Your task to perform on an android device: Open Google Maps Image 0: 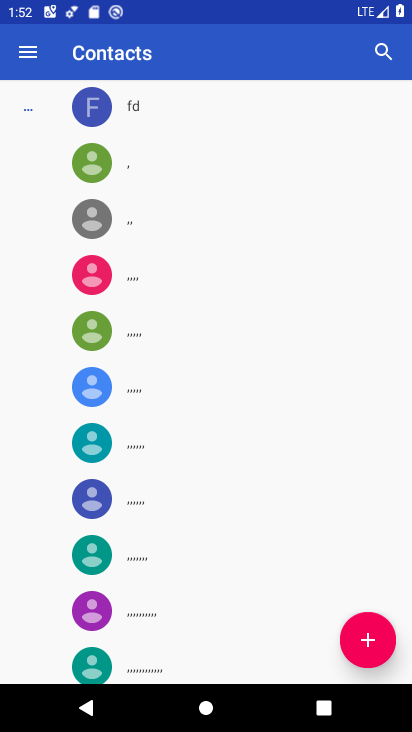
Step 0: press home button
Your task to perform on an android device: Open Google Maps Image 1: 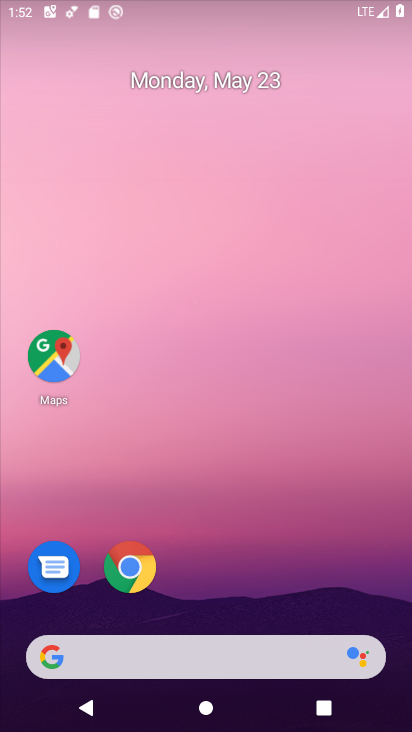
Step 1: drag from (233, 616) to (207, 318)
Your task to perform on an android device: Open Google Maps Image 2: 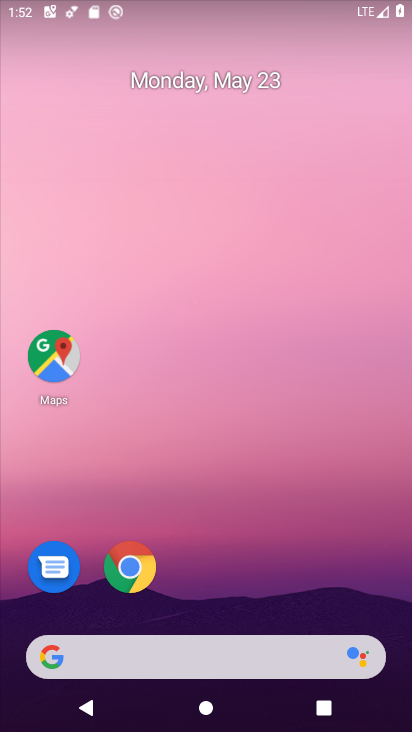
Step 2: drag from (204, 576) to (233, 215)
Your task to perform on an android device: Open Google Maps Image 3: 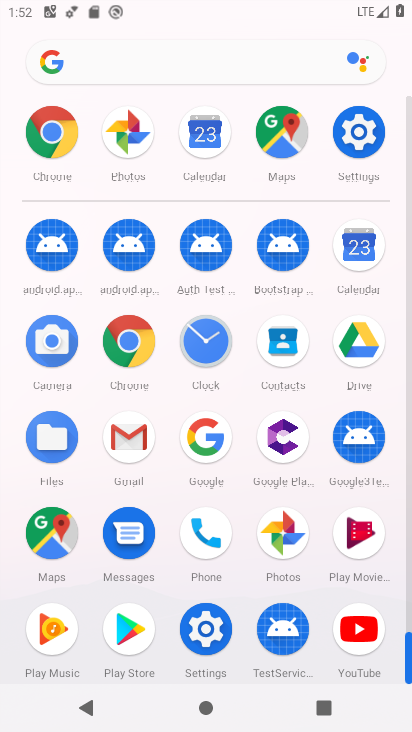
Step 3: click (47, 551)
Your task to perform on an android device: Open Google Maps Image 4: 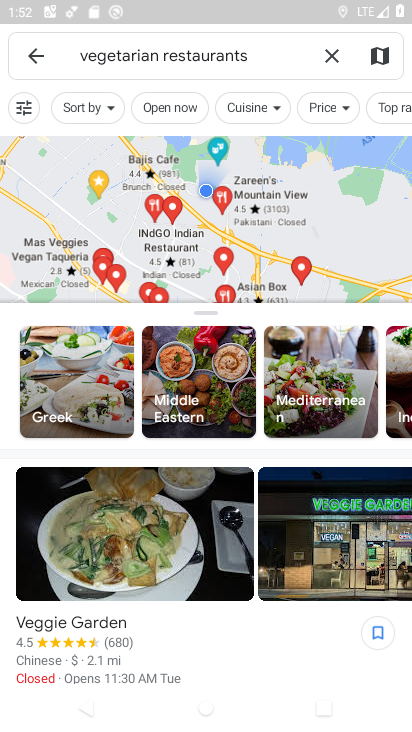
Step 4: task complete